Your task to perform on an android device: turn off smart reply in the gmail app Image 0: 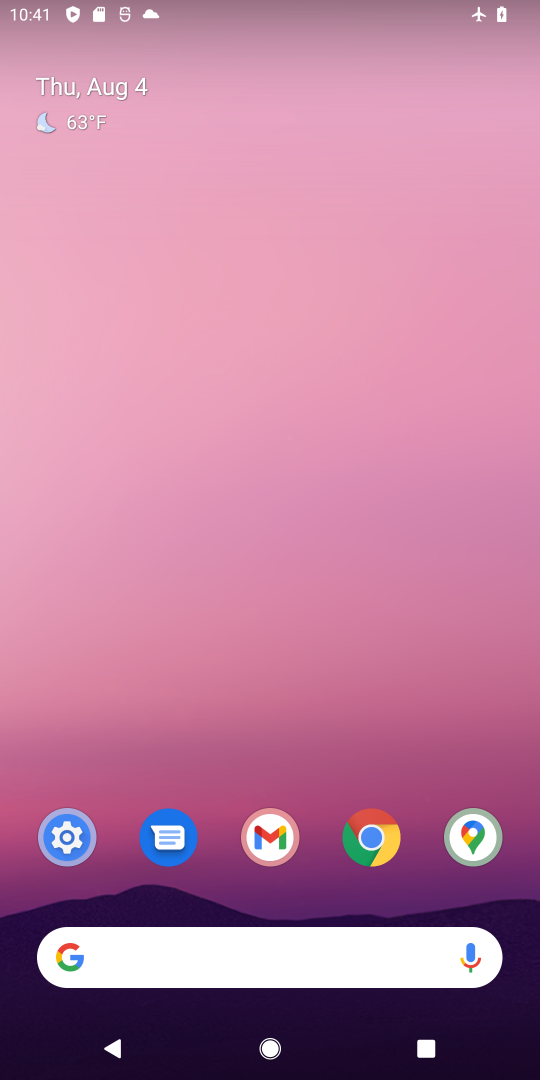
Step 0: drag from (311, 826) to (331, 277)
Your task to perform on an android device: turn off smart reply in the gmail app Image 1: 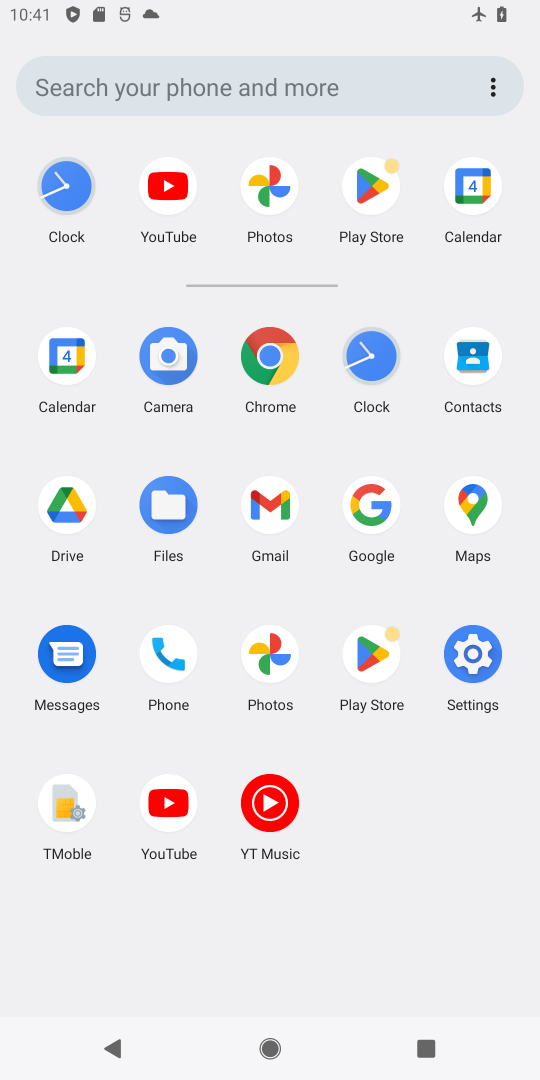
Step 1: click (272, 513)
Your task to perform on an android device: turn off smart reply in the gmail app Image 2: 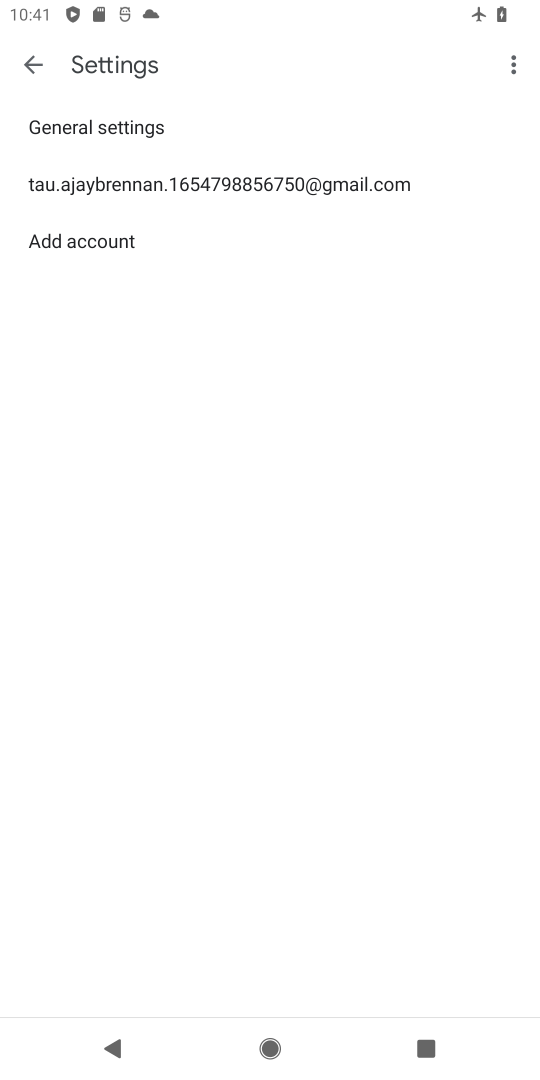
Step 2: click (87, 174)
Your task to perform on an android device: turn off smart reply in the gmail app Image 3: 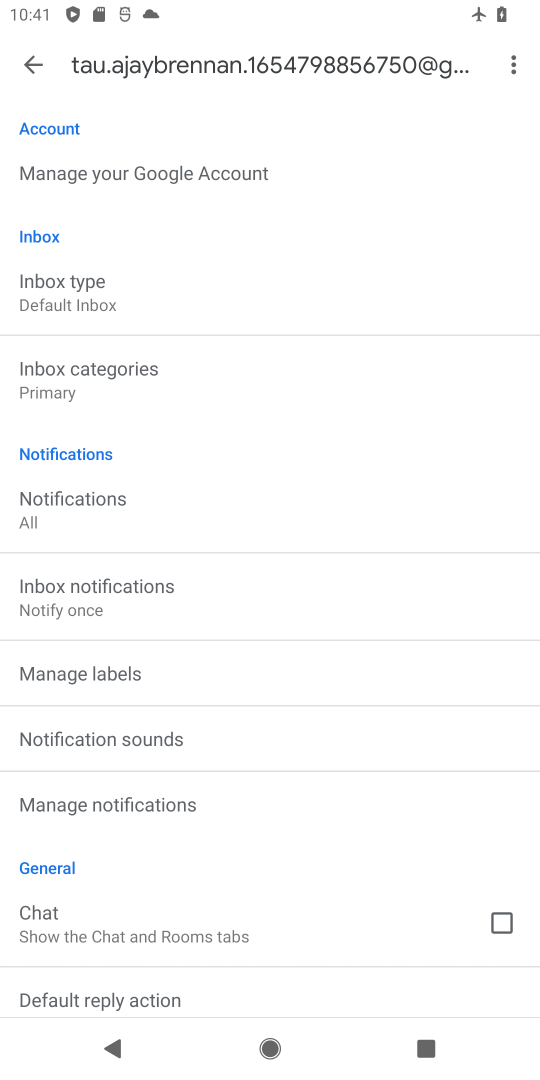
Step 3: drag from (196, 966) to (394, 306)
Your task to perform on an android device: turn off smart reply in the gmail app Image 4: 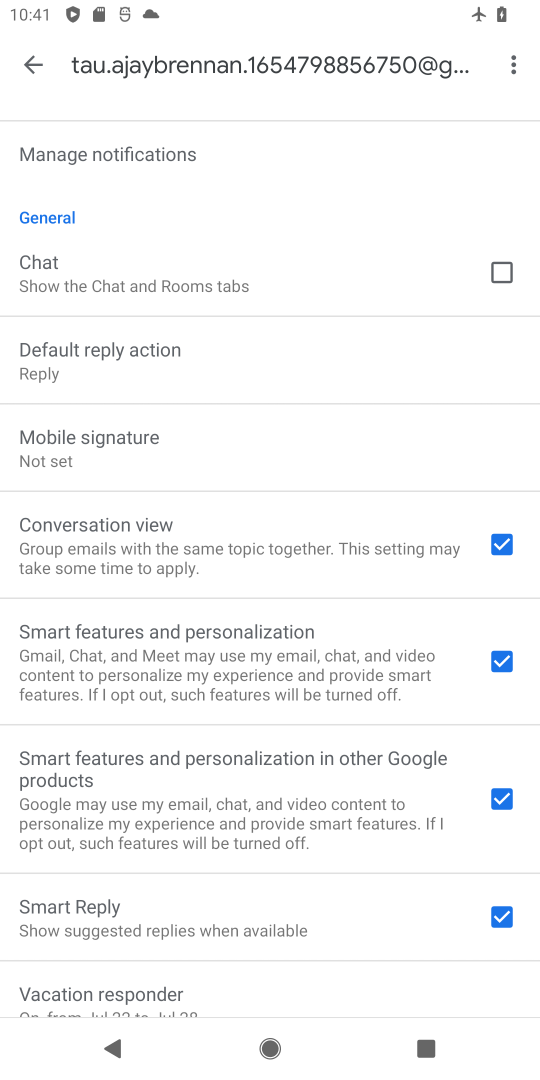
Step 4: click (502, 917)
Your task to perform on an android device: turn off smart reply in the gmail app Image 5: 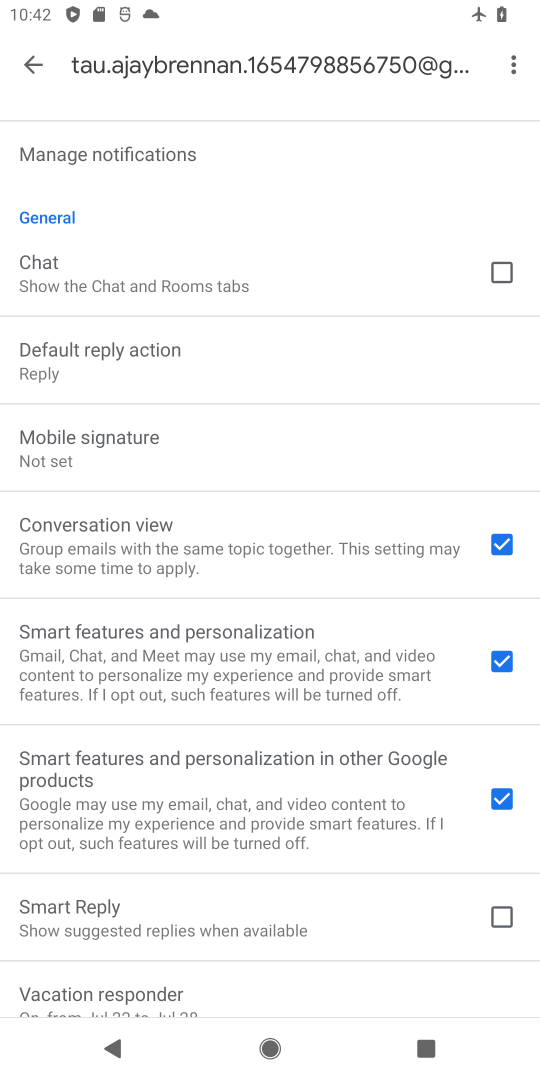
Step 5: task complete